Your task to perform on an android device: Open Google Image 0: 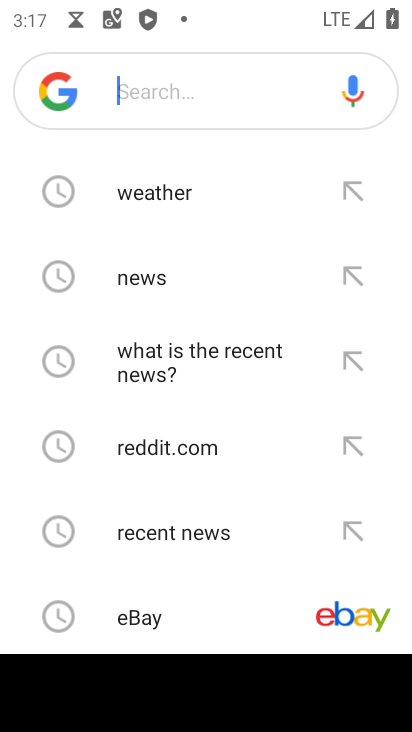
Step 0: press home button
Your task to perform on an android device: Open Google Image 1: 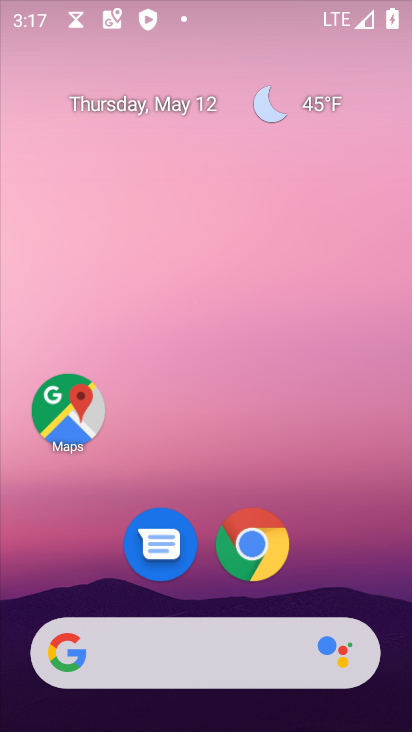
Step 1: drag from (170, 508) to (166, 2)
Your task to perform on an android device: Open Google Image 2: 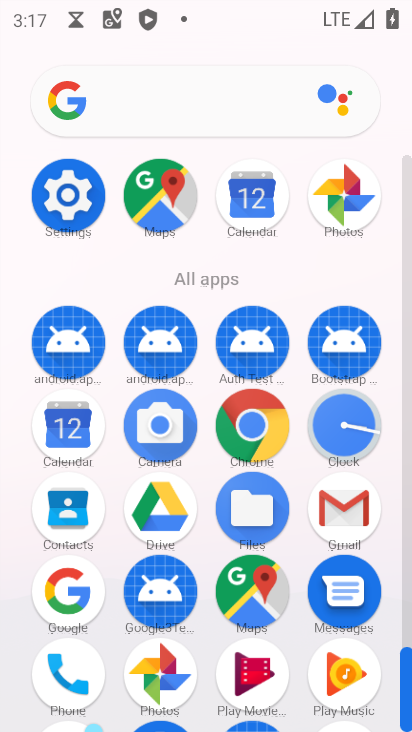
Step 2: click (73, 589)
Your task to perform on an android device: Open Google Image 3: 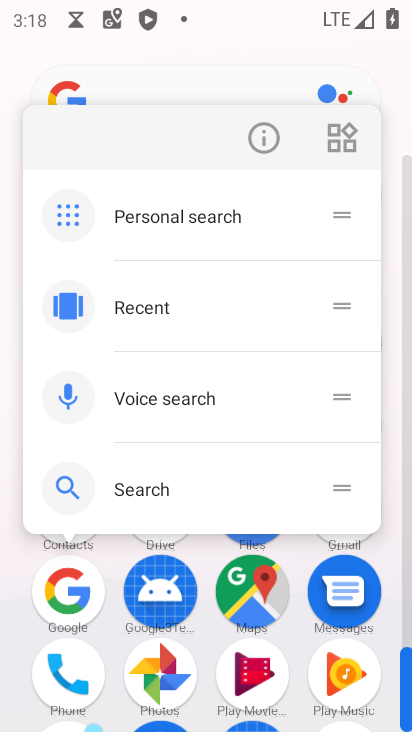
Step 3: click (69, 585)
Your task to perform on an android device: Open Google Image 4: 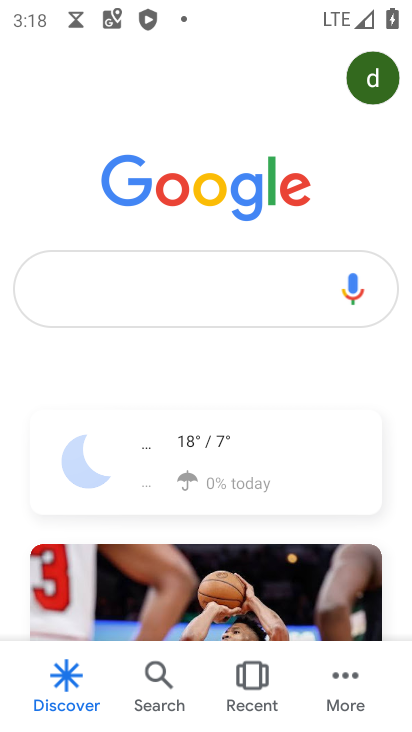
Step 4: task complete